Your task to perform on an android device: turn off improve location accuracy Image 0: 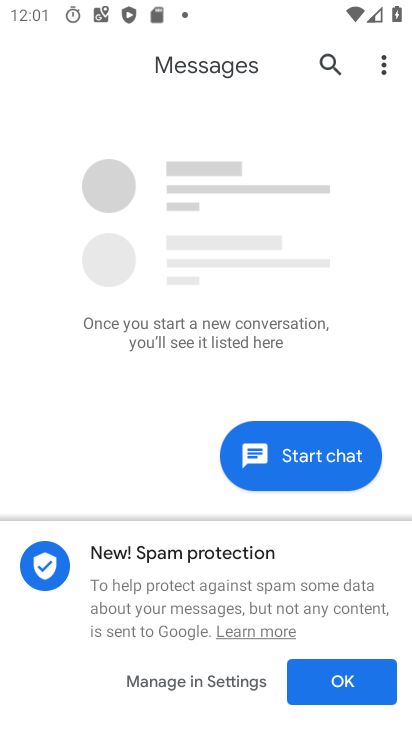
Step 0: press home button
Your task to perform on an android device: turn off improve location accuracy Image 1: 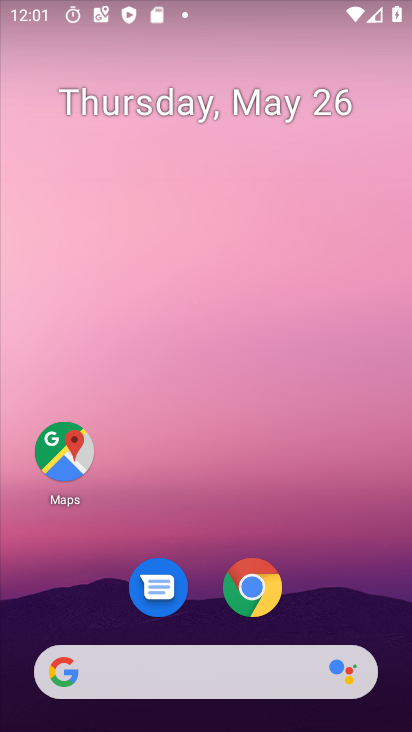
Step 1: drag from (258, 678) to (357, 60)
Your task to perform on an android device: turn off improve location accuracy Image 2: 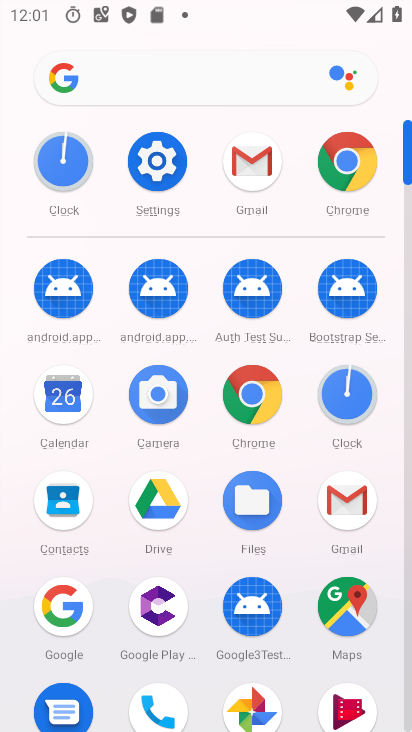
Step 2: click (164, 181)
Your task to perform on an android device: turn off improve location accuracy Image 3: 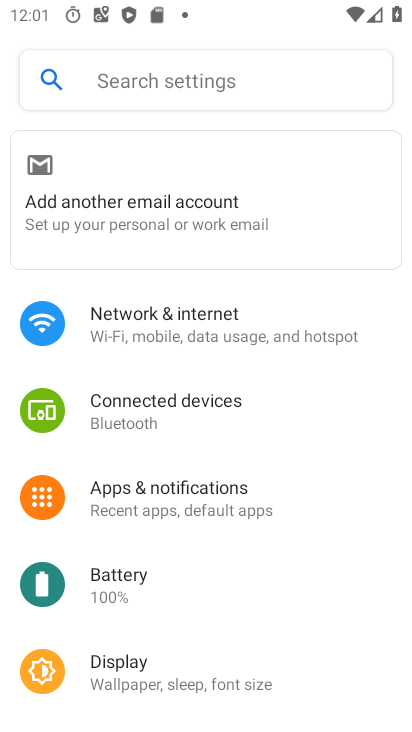
Step 3: click (198, 77)
Your task to perform on an android device: turn off improve location accuracy Image 4: 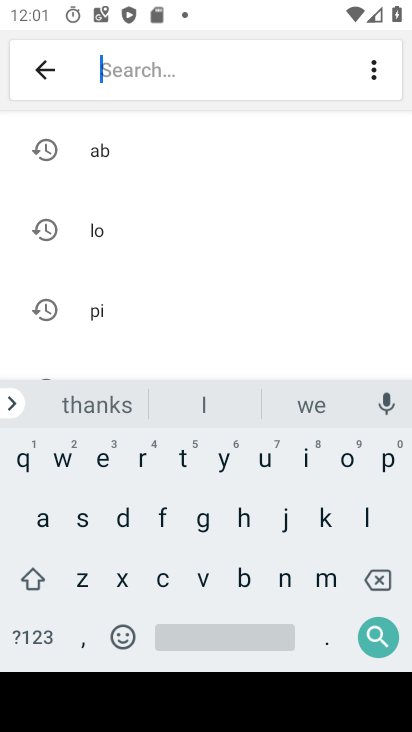
Step 4: click (105, 223)
Your task to perform on an android device: turn off improve location accuracy Image 5: 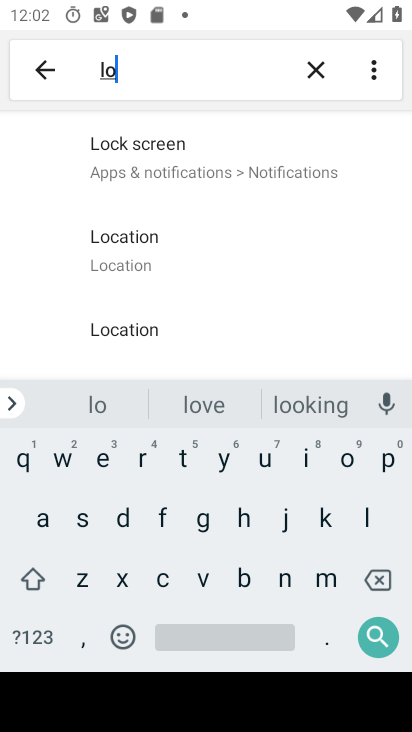
Step 5: click (133, 251)
Your task to perform on an android device: turn off improve location accuracy Image 6: 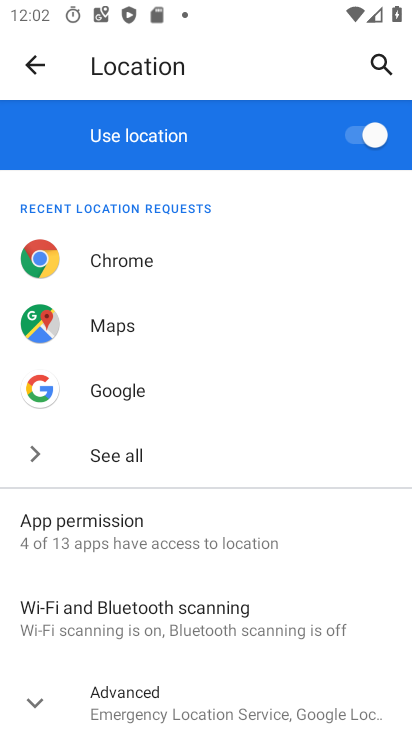
Step 6: click (62, 691)
Your task to perform on an android device: turn off improve location accuracy Image 7: 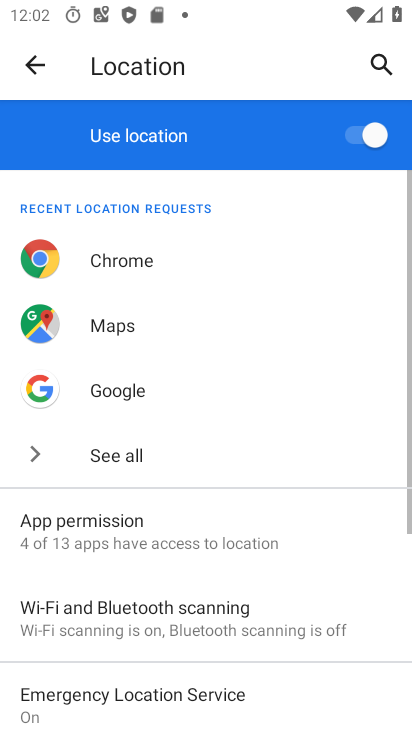
Step 7: drag from (242, 704) to (243, 321)
Your task to perform on an android device: turn off improve location accuracy Image 8: 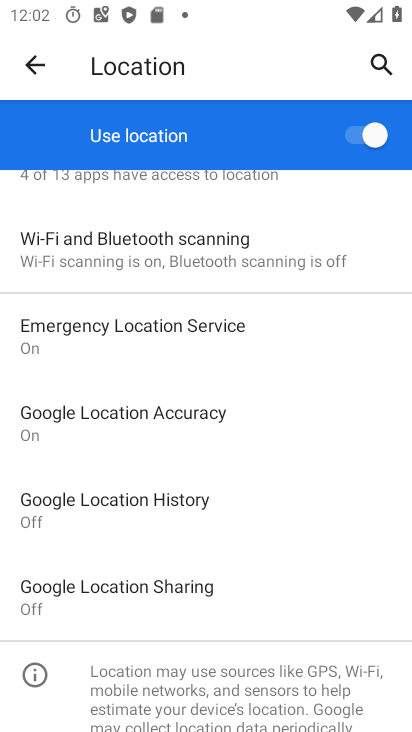
Step 8: click (189, 412)
Your task to perform on an android device: turn off improve location accuracy Image 9: 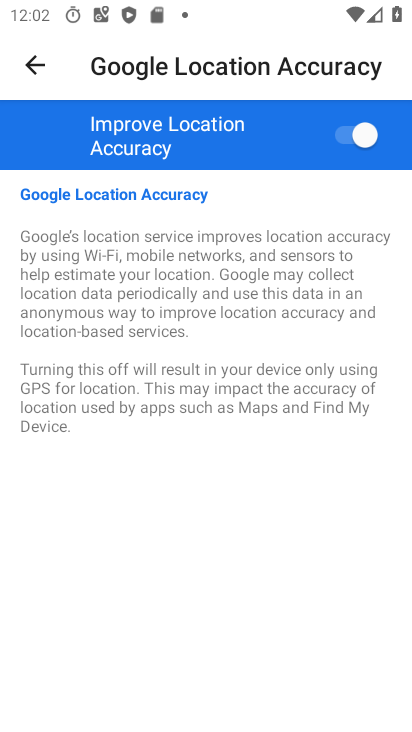
Step 9: click (343, 143)
Your task to perform on an android device: turn off improve location accuracy Image 10: 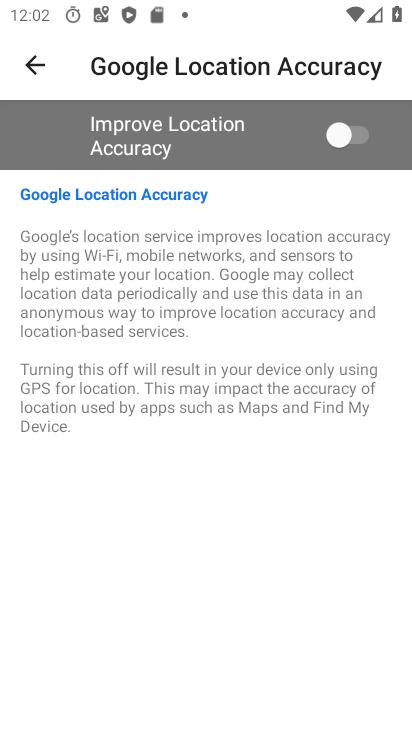
Step 10: task complete